Your task to perform on an android device: delete the emails in spam in the gmail app Image 0: 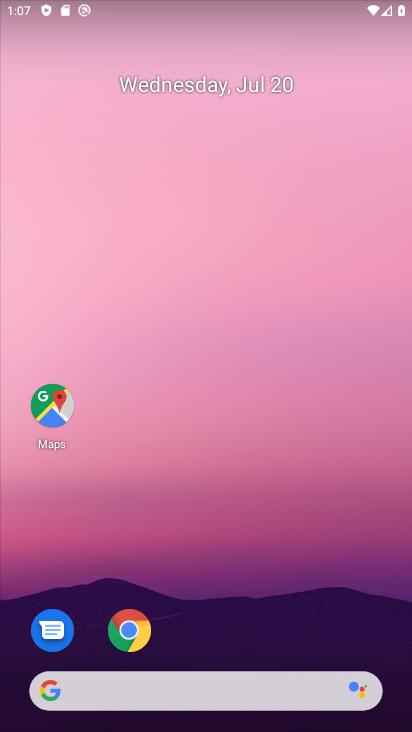
Step 0: drag from (227, 292) to (231, 99)
Your task to perform on an android device: delete the emails in spam in the gmail app Image 1: 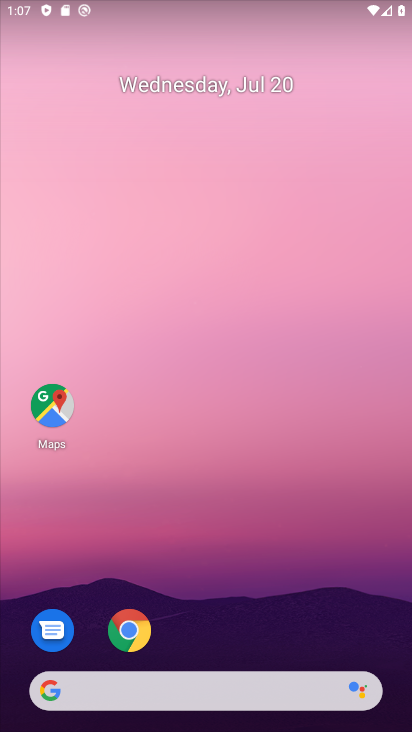
Step 1: drag from (333, 598) to (257, 89)
Your task to perform on an android device: delete the emails in spam in the gmail app Image 2: 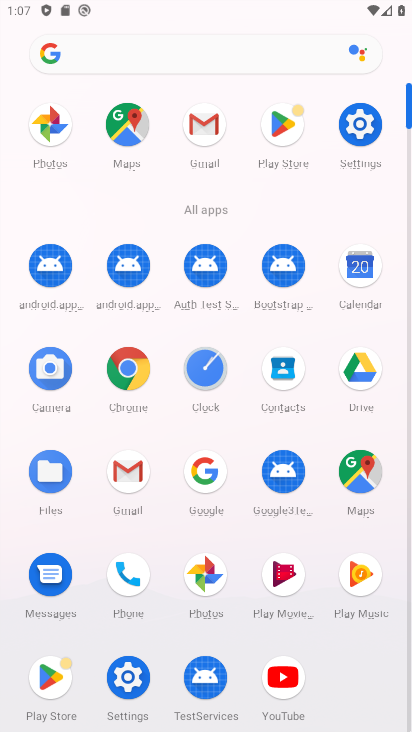
Step 2: click (200, 119)
Your task to perform on an android device: delete the emails in spam in the gmail app Image 3: 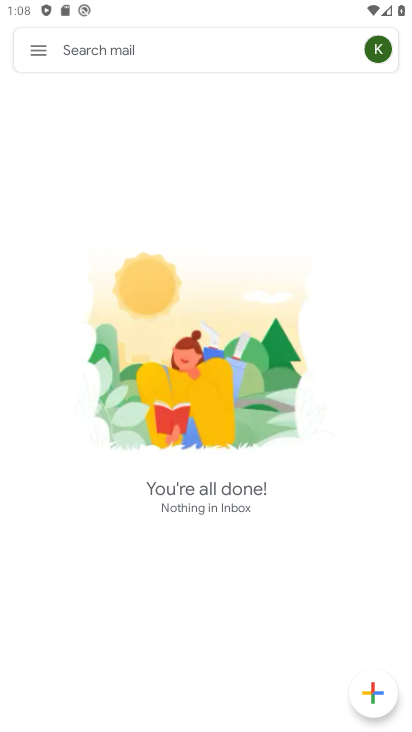
Step 3: click (39, 41)
Your task to perform on an android device: delete the emails in spam in the gmail app Image 4: 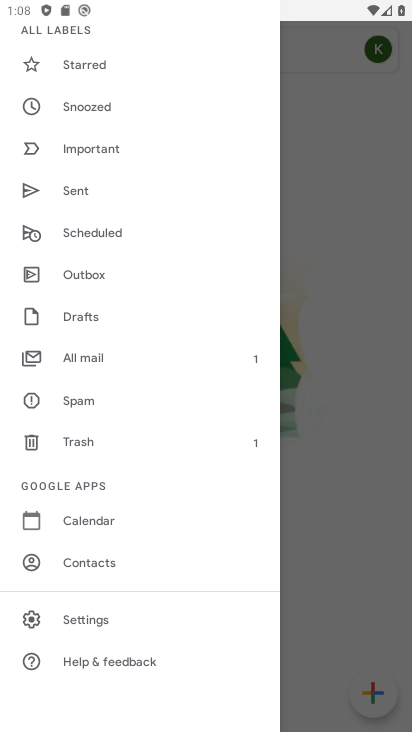
Step 4: click (68, 396)
Your task to perform on an android device: delete the emails in spam in the gmail app Image 5: 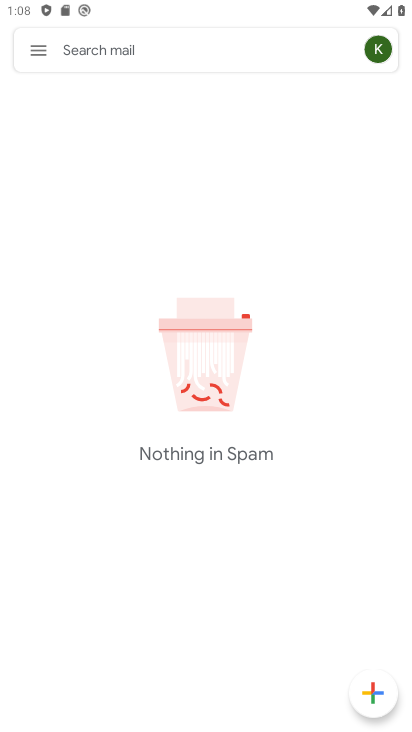
Step 5: task complete